Your task to perform on an android device: turn off location history Image 0: 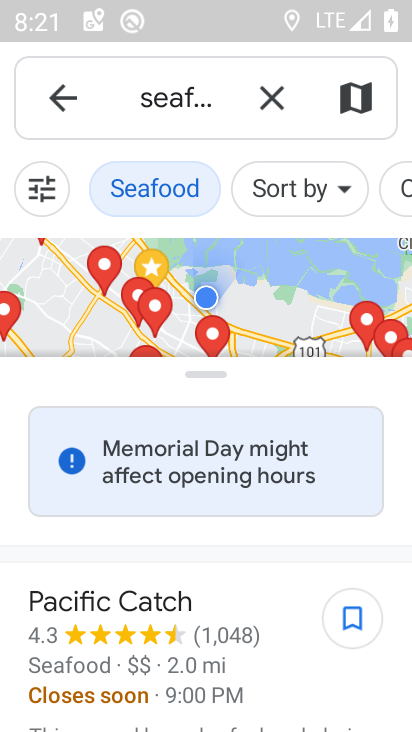
Step 0: press home button
Your task to perform on an android device: turn off location history Image 1: 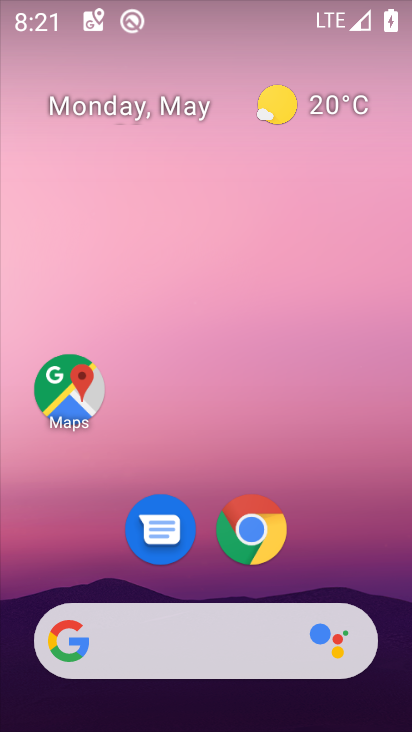
Step 1: drag from (11, 604) to (176, 143)
Your task to perform on an android device: turn off location history Image 2: 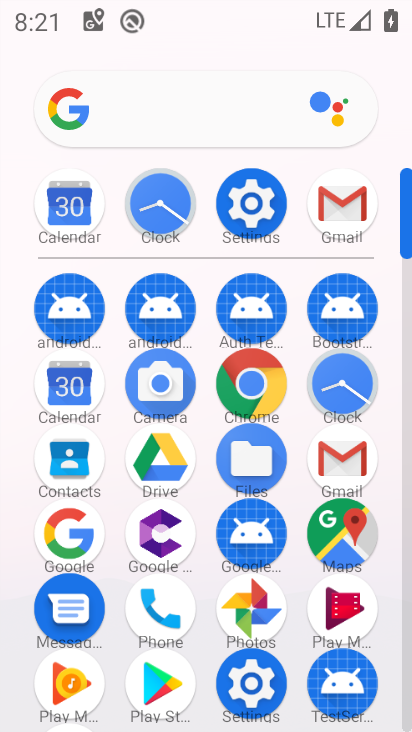
Step 2: click (249, 211)
Your task to perform on an android device: turn off location history Image 3: 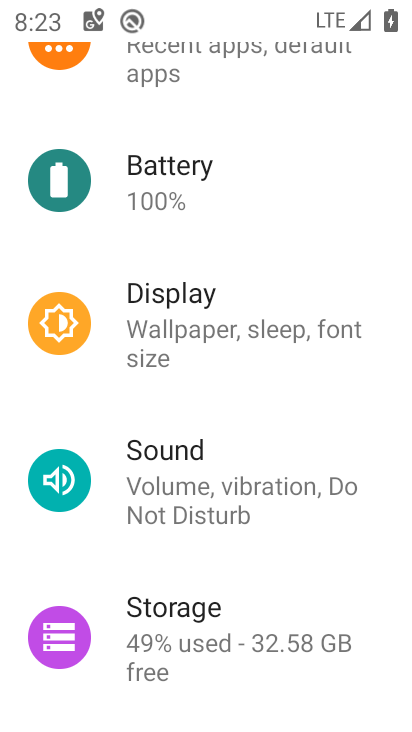
Step 3: drag from (7, 634) to (103, 201)
Your task to perform on an android device: turn off location history Image 4: 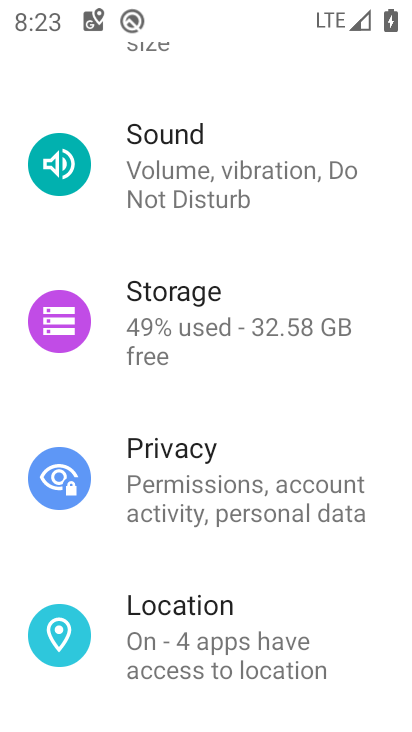
Step 4: click (168, 625)
Your task to perform on an android device: turn off location history Image 5: 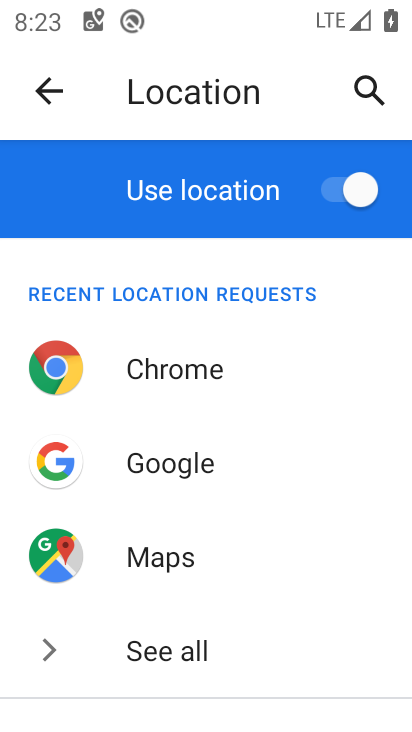
Step 5: task complete